Your task to perform on an android device: Open privacy settings Image 0: 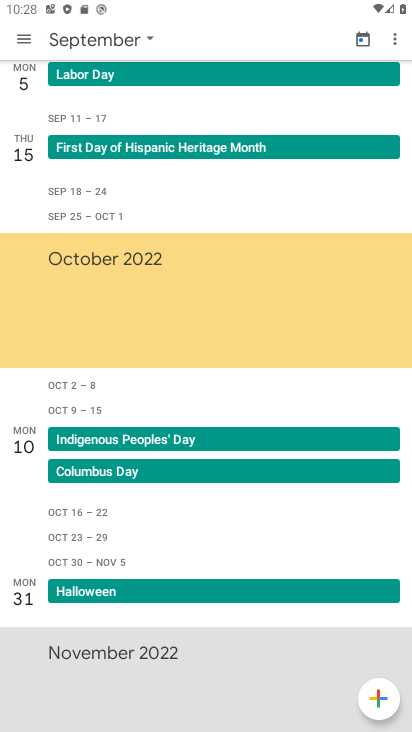
Step 0: press home button
Your task to perform on an android device: Open privacy settings Image 1: 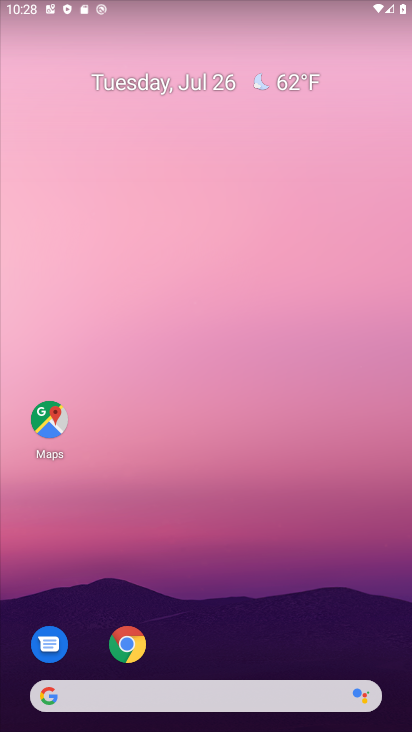
Step 1: drag from (311, 634) to (287, 208)
Your task to perform on an android device: Open privacy settings Image 2: 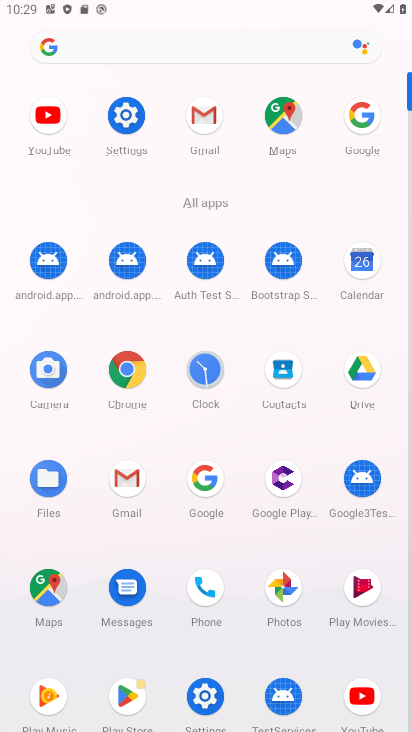
Step 2: click (208, 692)
Your task to perform on an android device: Open privacy settings Image 3: 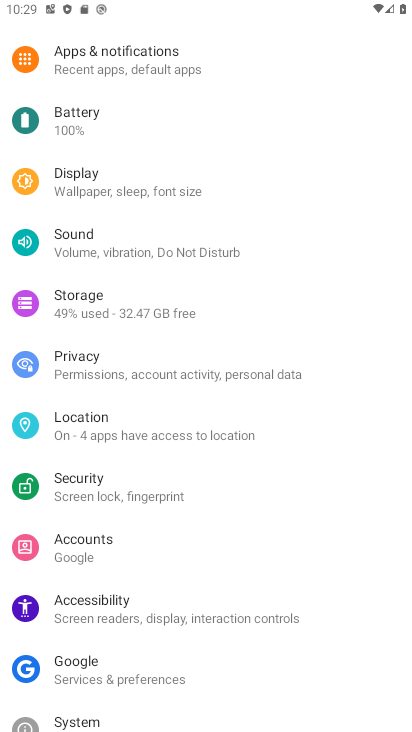
Step 3: click (199, 363)
Your task to perform on an android device: Open privacy settings Image 4: 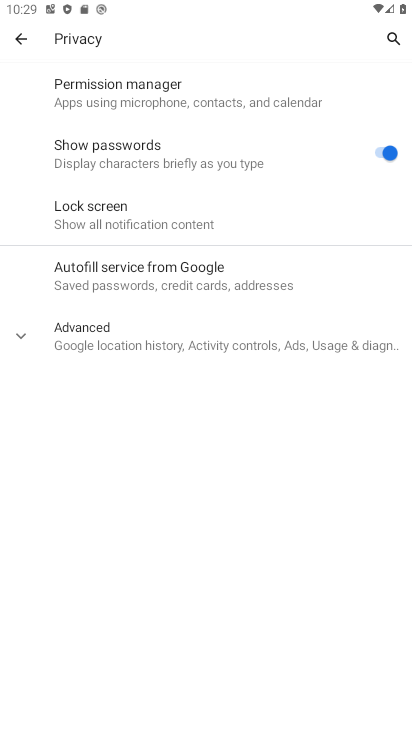
Step 4: task complete